Your task to perform on an android device: find which apps use the phone's location Image 0: 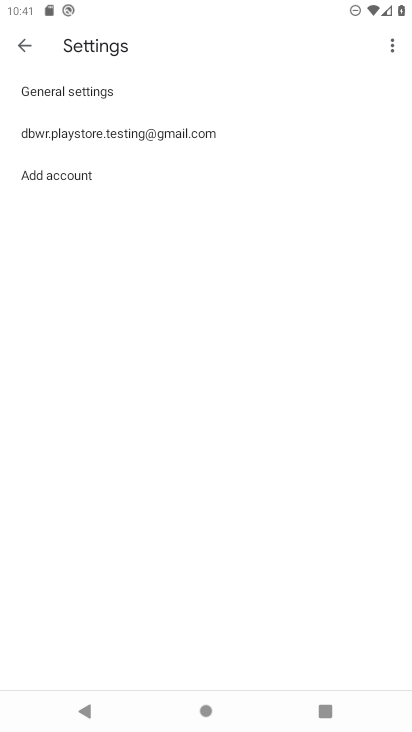
Step 0: press home button
Your task to perform on an android device: find which apps use the phone's location Image 1: 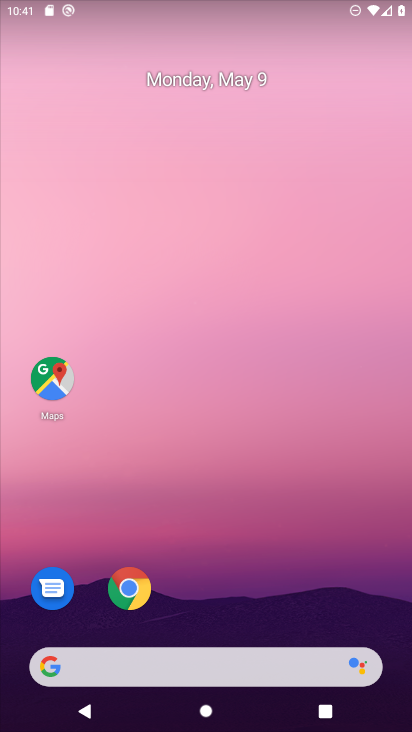
Step 1: drag from (245, 585) to (280, 8)
Your task to perform on an android device: find which apps use the phone's location Image 2: 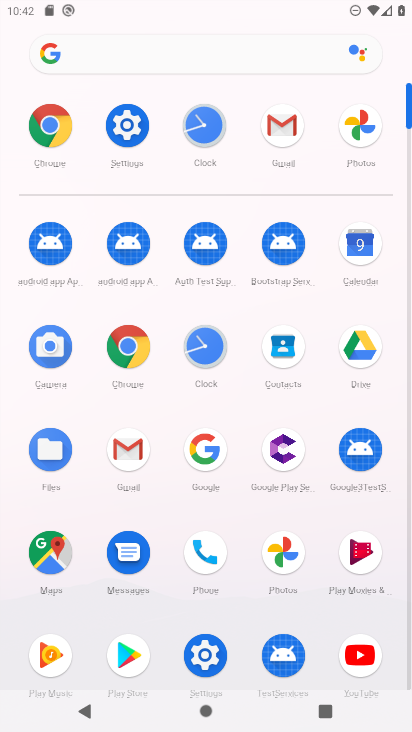
Step 2: click (137, 138)
Your task to perform on an android device: find which apps use the phone's location Image 3: 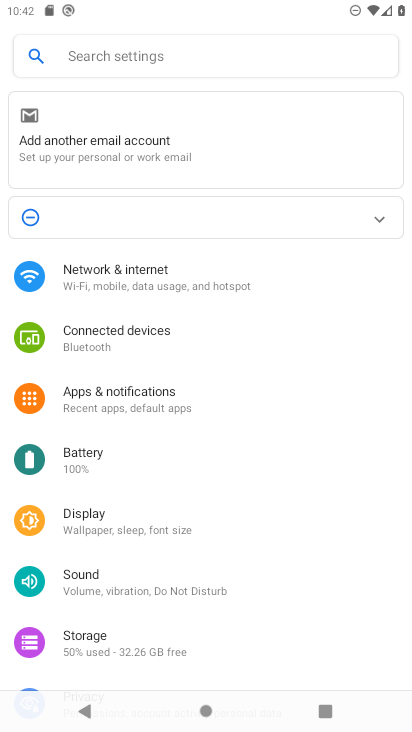
Step 3: task complete